Your task to perform on an android device: install app "Calculator" Image 0: 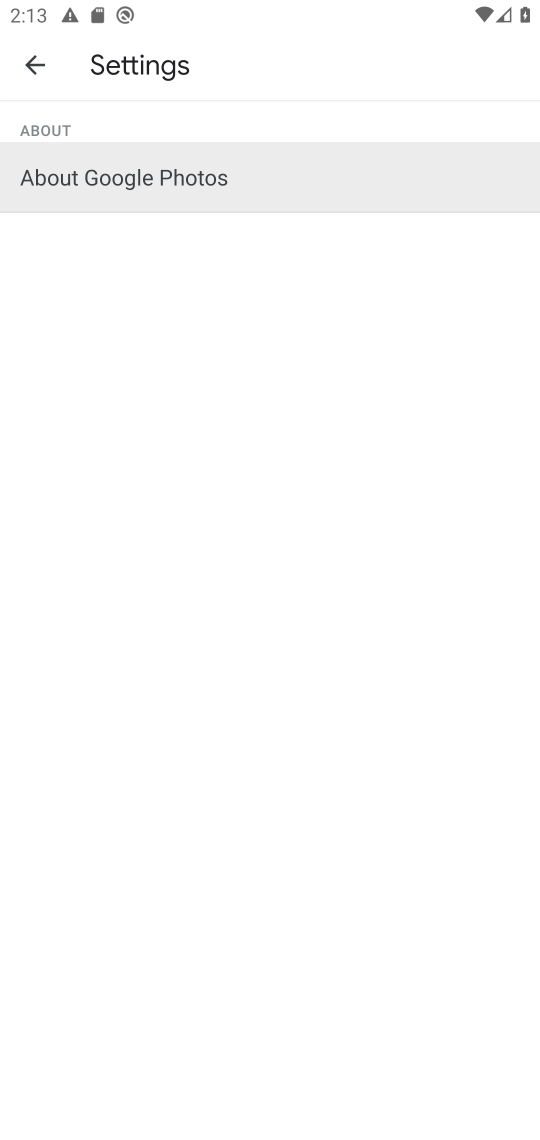
Step 0: press home button
Your task to perform on an android device: install app "Calculator" Image 1: 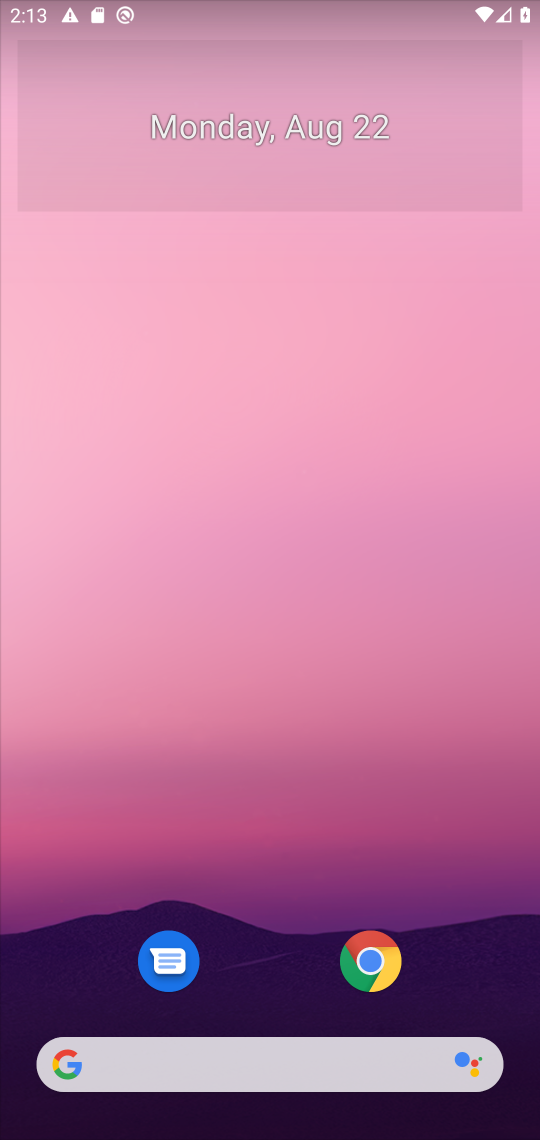
Step 1: drag from (470, 827) to (435, 85)
Your task to perform on an android device: install app "Calculator" Image 2: 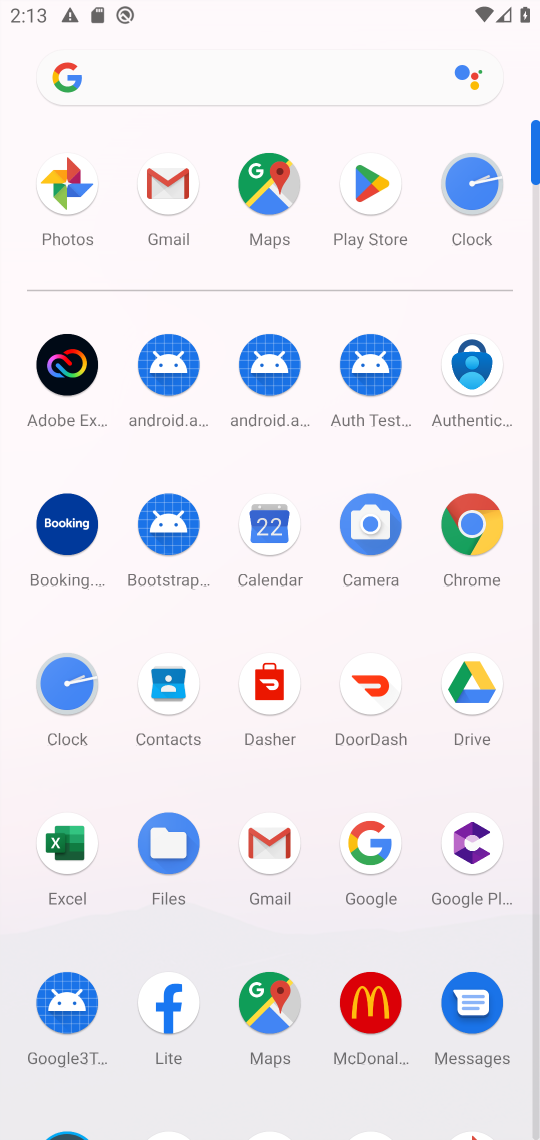
Step 2: click (371, 178)
Your task to perform on an android device: install app "Calculator" Image 3: 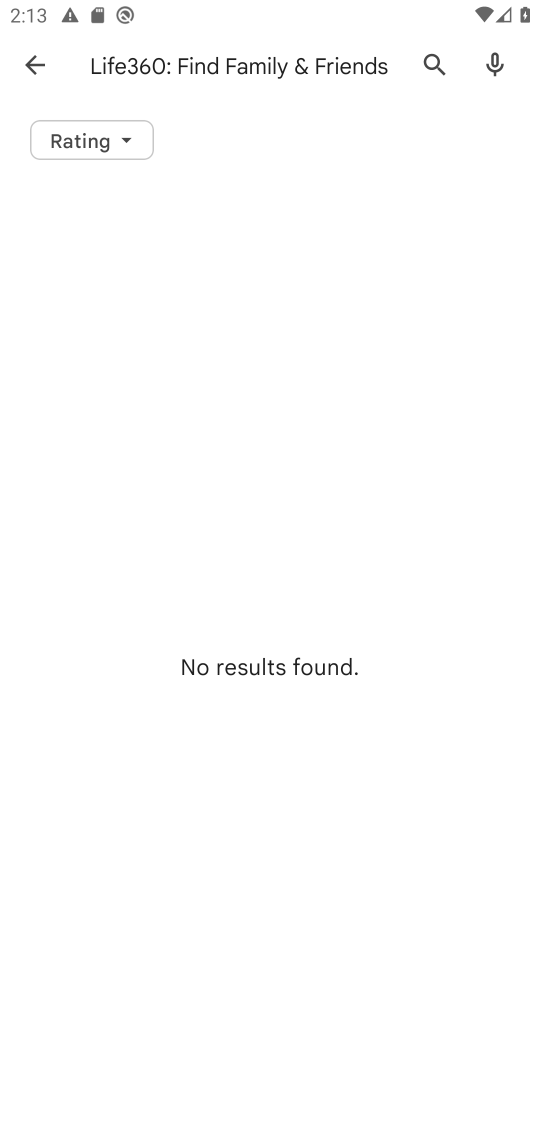
Step 3: press back button
Your task to perform on an android device: install app "Calculator" Image 4: 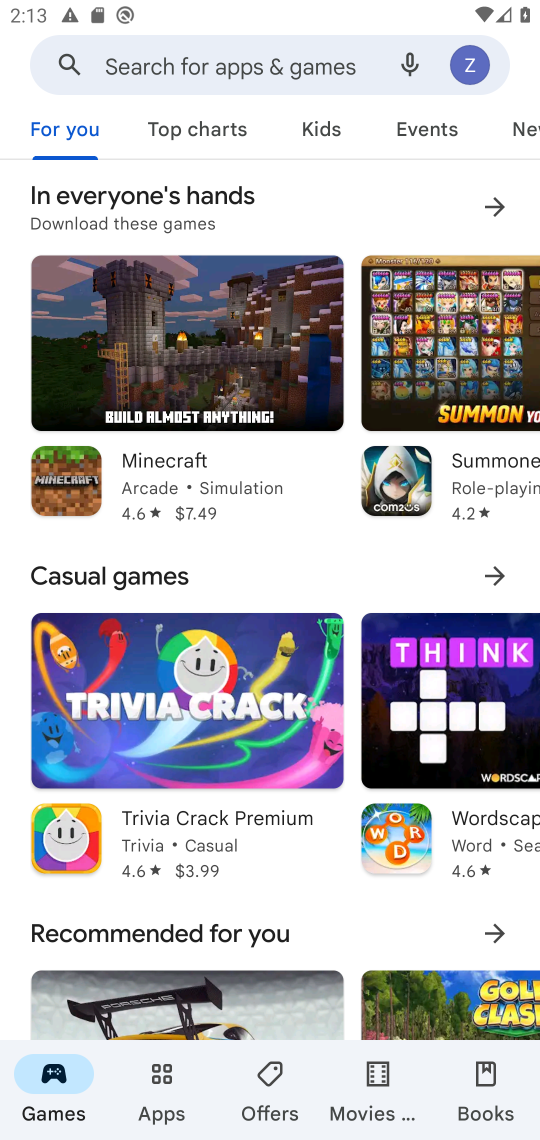
Step 4: click (329, 53)
Your task to perform on an android device: install app "Calculator" Image 5: 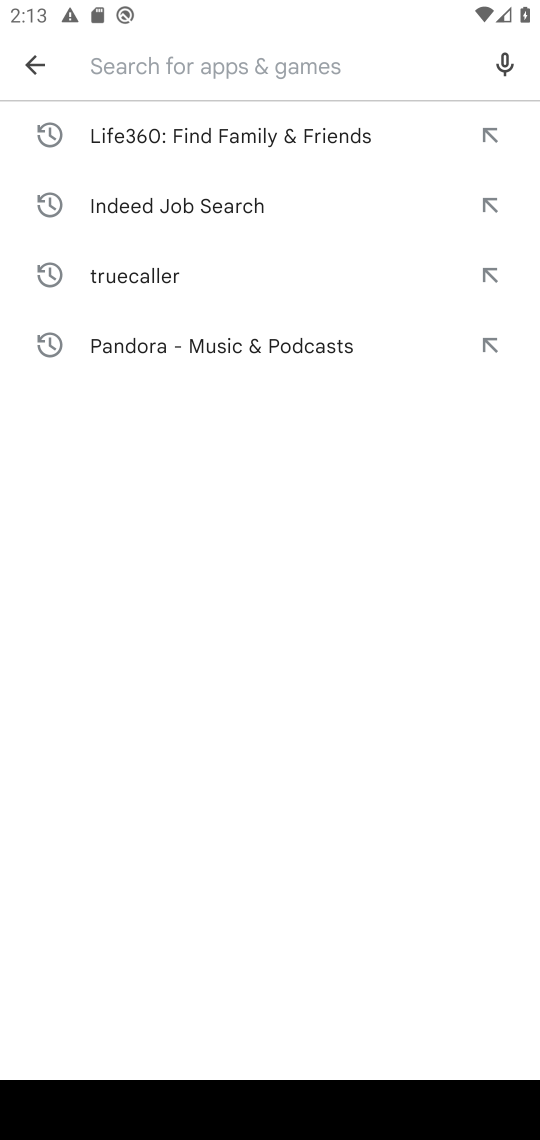
Step 5: type "Calculator"
Your task to perform on an android device: install app "Calculator" Image 6: 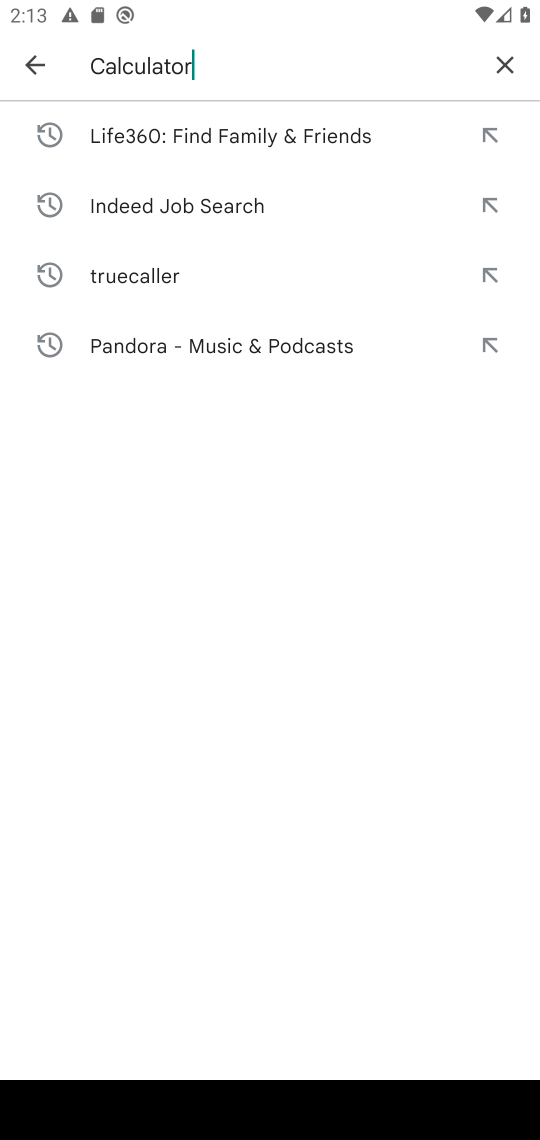
Step 6: press enter
Your task to perform on an android device: install app "Calculator" Image 7: 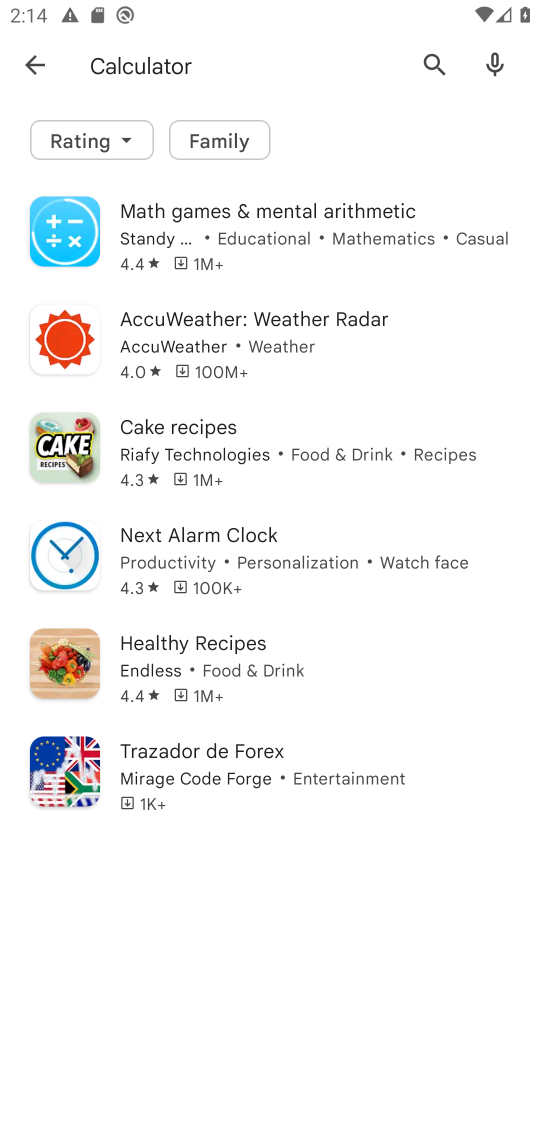
Step 7: task complete